Your task to perform on an android device: open wifi settings Image 0: 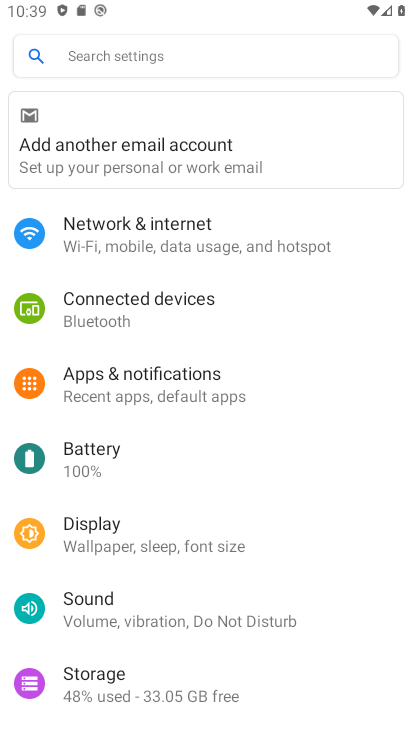
Step 0: click (137, 226)
Your task to perform on an android device: open wifi settings Image 1: 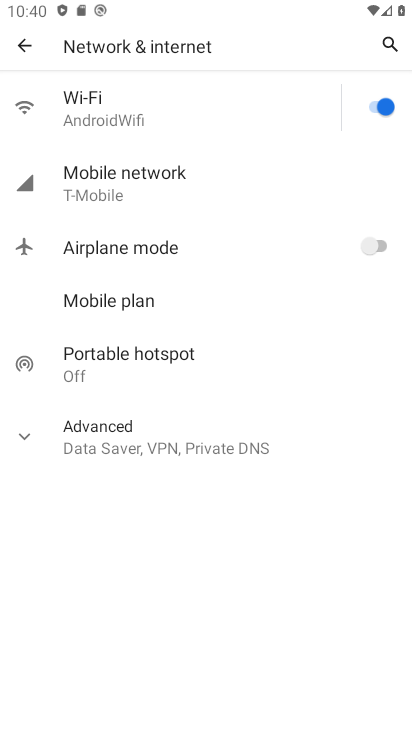
Step 1: click (96, 108)
Your task to perform on an android device: open wifi settings Image 2: 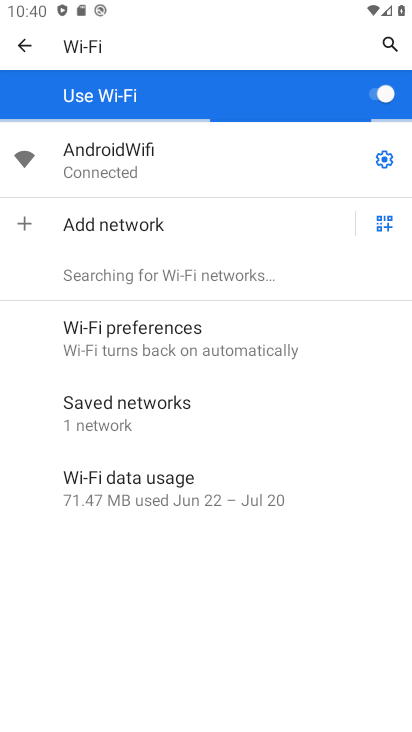
Step 2: task complete